Your task to perform on an android device: Install the Lyft app Image 0: 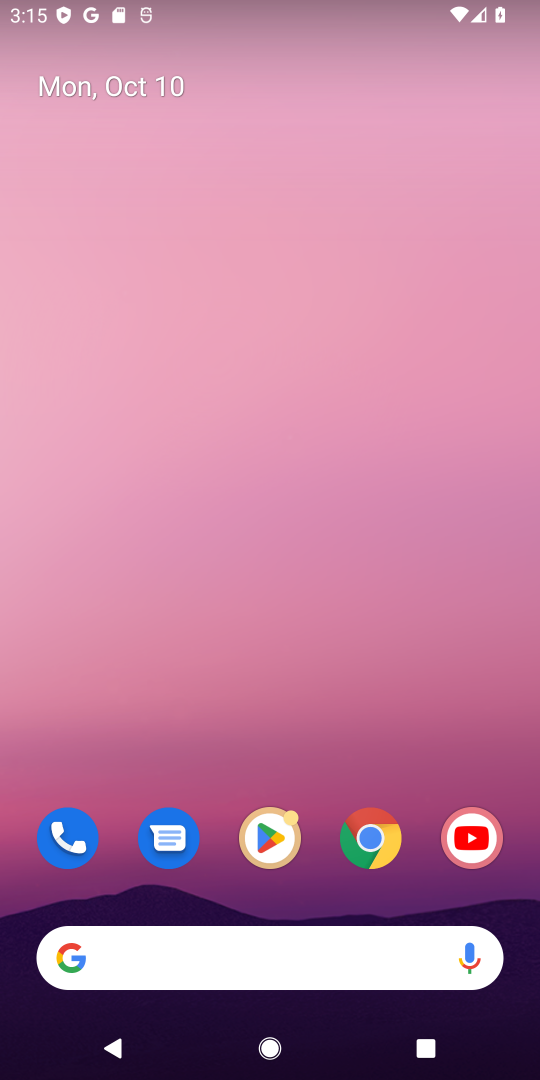
Step 0: click (297, 830)
Your task to perform on an android device: Install the Lyft app Image 1: 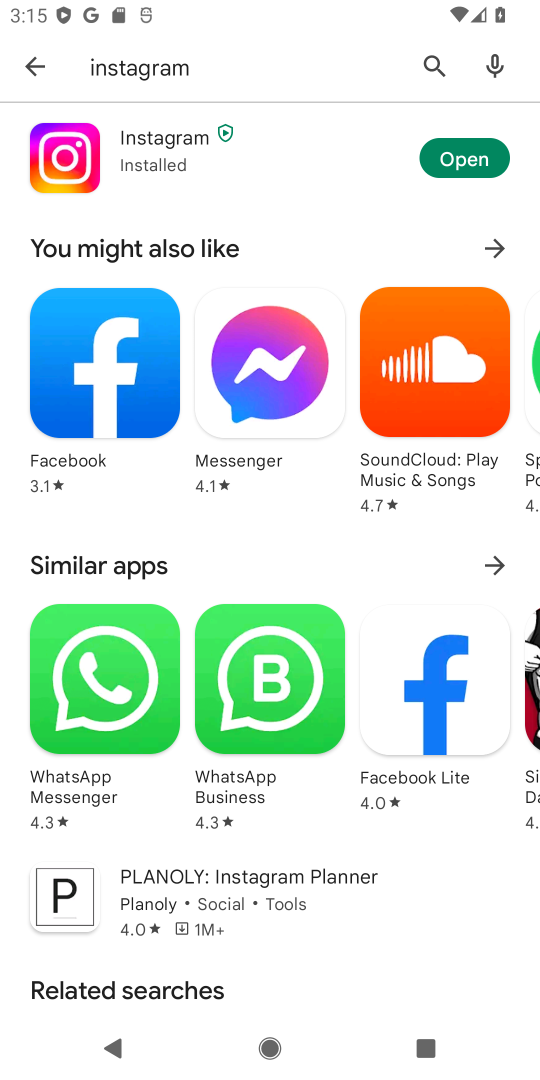
Step 1: click (423, 54)
Your task to perform on an android device: Install the Lyft app Image 2: 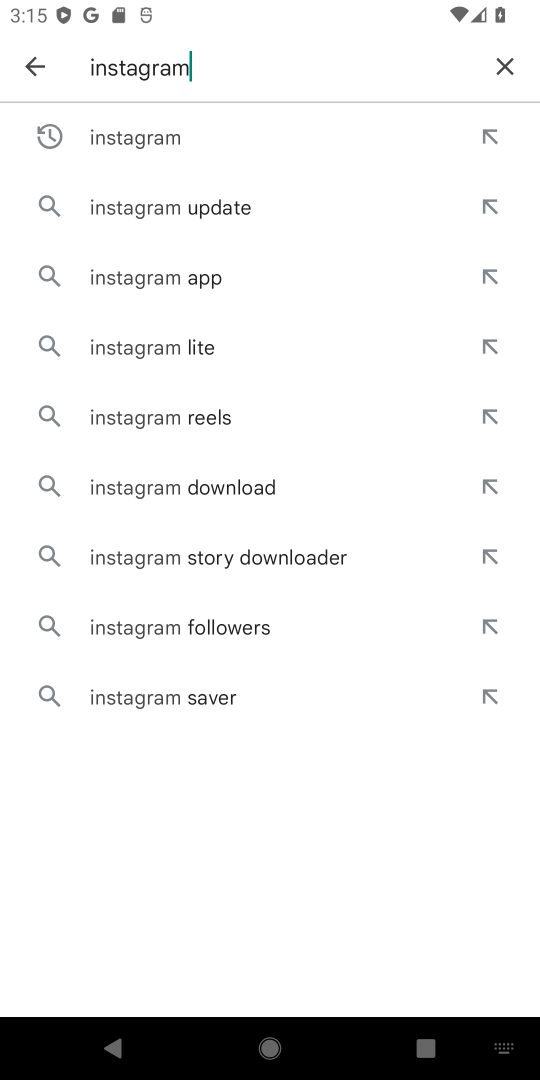
Step 2: click (513, 60)
Your task to perform on an android device: Install the Lyft app Image 3: 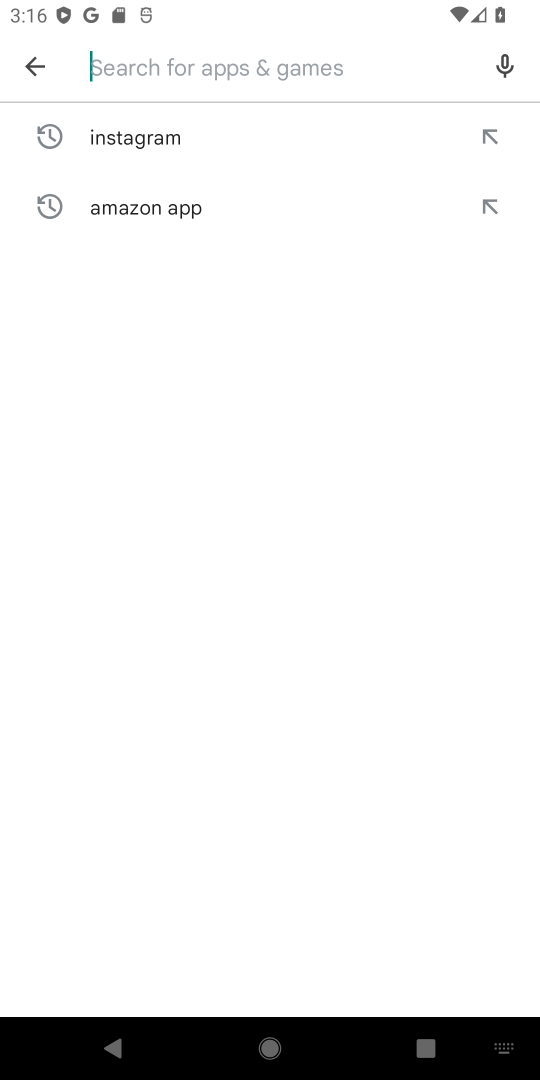
Step 3: type " Lyft app"
Your task to perform on an android device: Install the Lyft app Image 4: 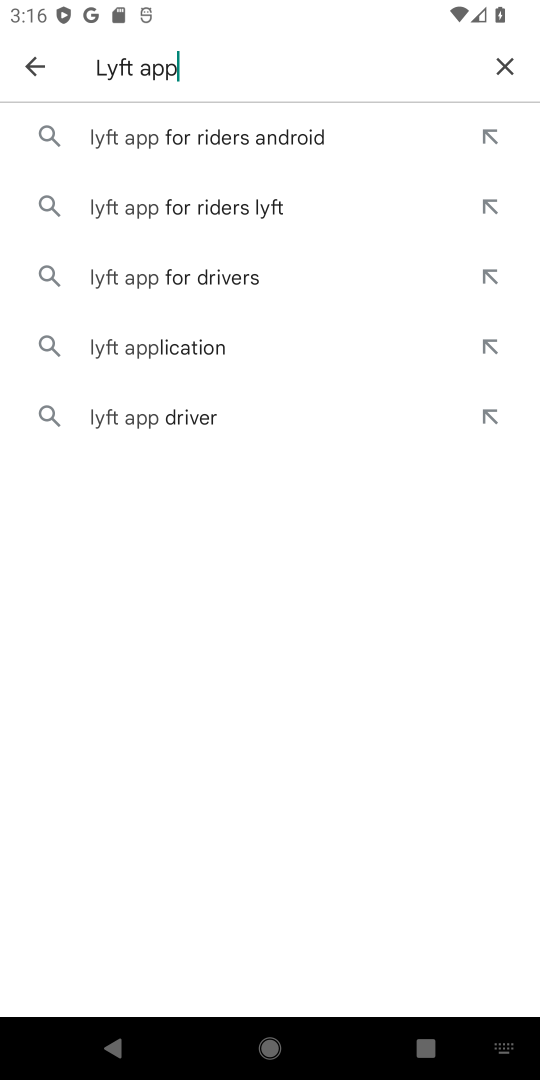
Step 4: click (140, 413)
Your task to perform on an android device: Install the Lyft app Image 5: 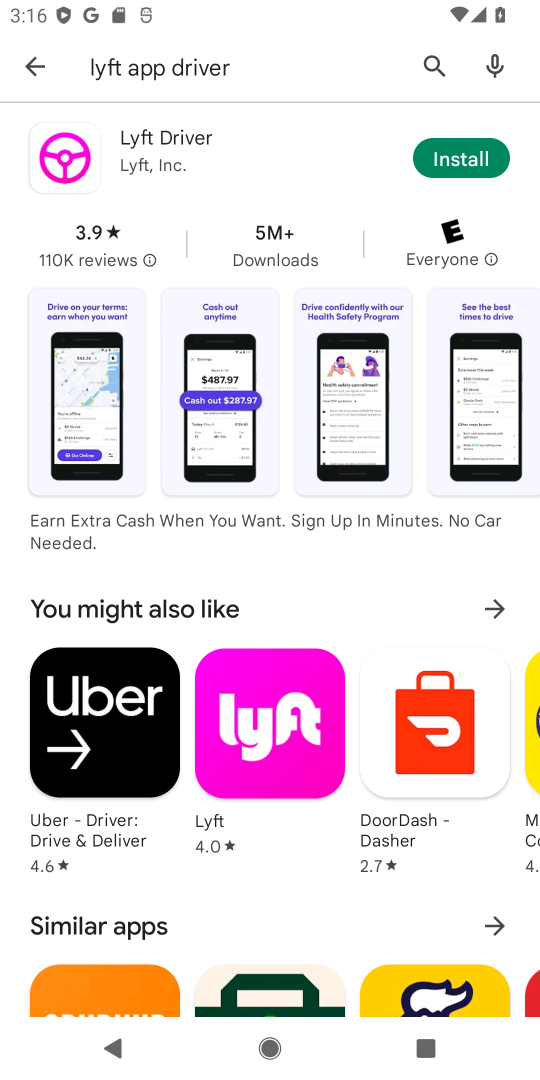
Step 5: click (457, 160)
Your task to perform on an android device: Install the Lyft app Image 6: 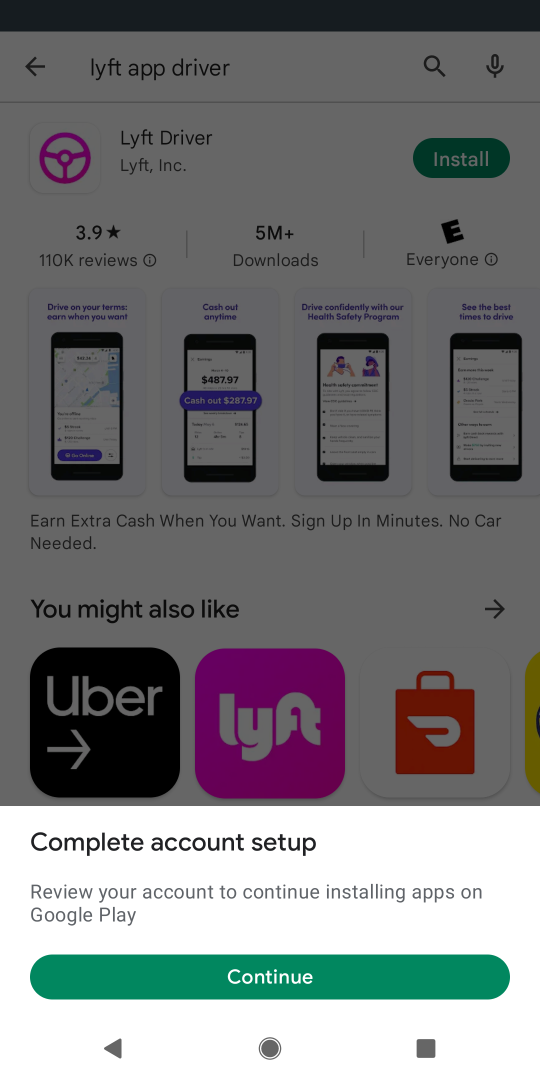
Step 6: click (415, 978)
Your task to perform on an android device: Install the Lyft app Image 7: 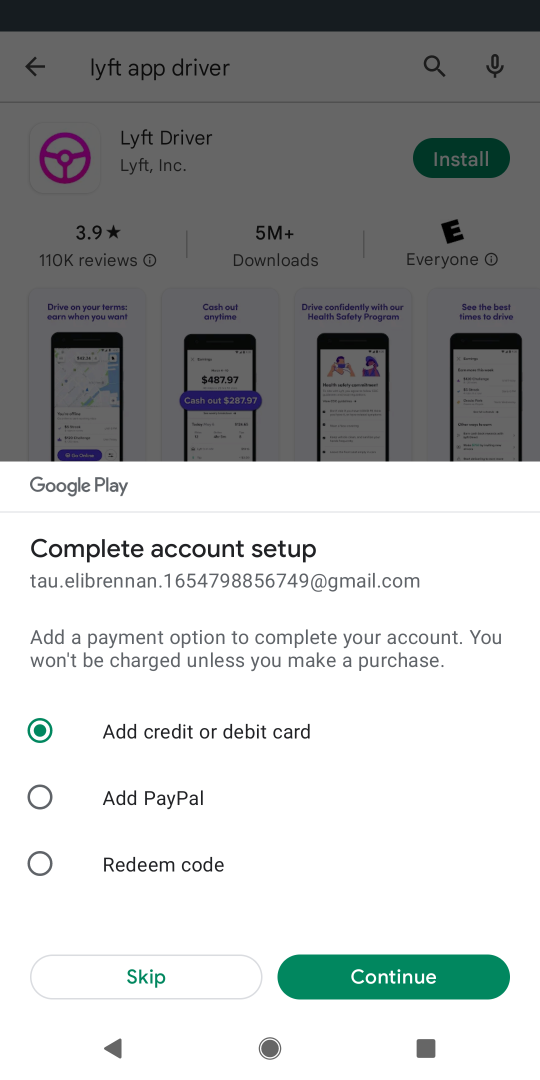
Step 7: click (161, 988)
Your task to perform on an android device: Install the Lyft app Image 8: 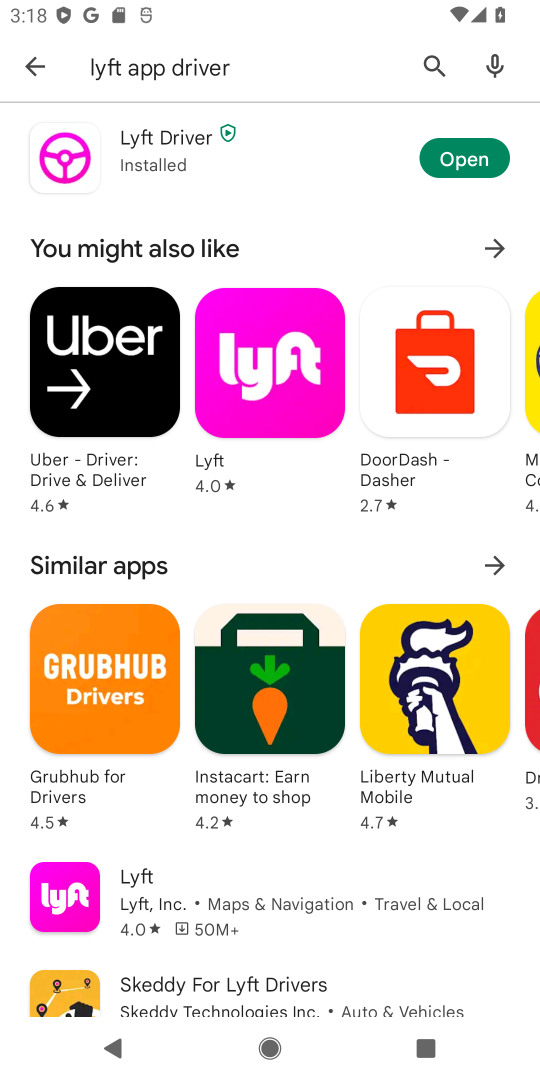
Step 8: task complete